Your task to perform on an android device: refresh tabs in the chrome app Image 0: 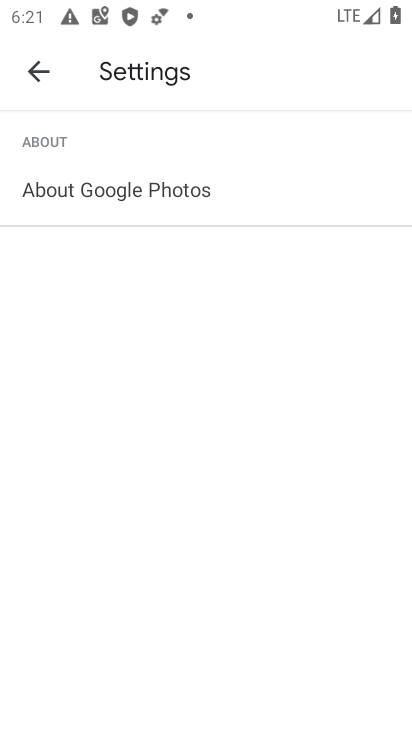
Step 0: press home button
Your task to perform on an android device: refresh tabs in the chrome app Image 1: 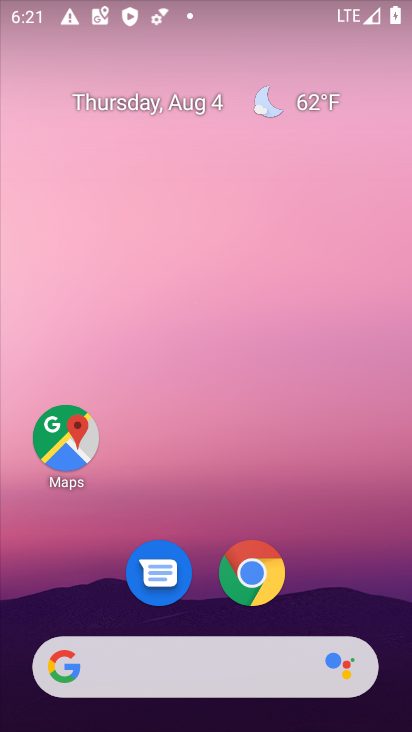
Step 1: drag from (214, 620) to (209, 221)
Your task to perform on an android device: refresh tabs in the chrome app Image 2: 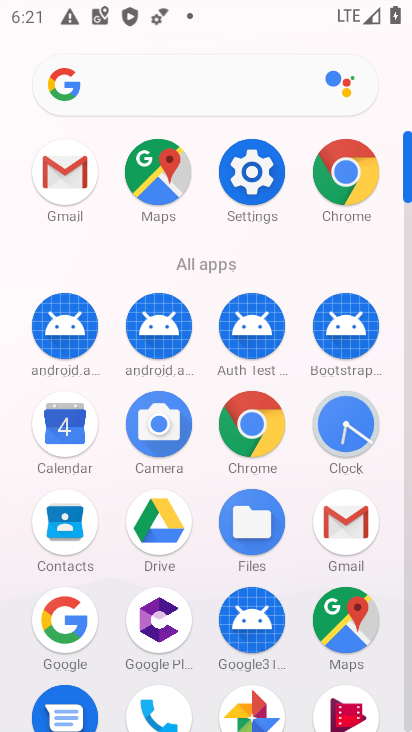
Step 2: click (334, 185)
Your task to perform on an android device: refresh tabs in the chrome app Image 3: 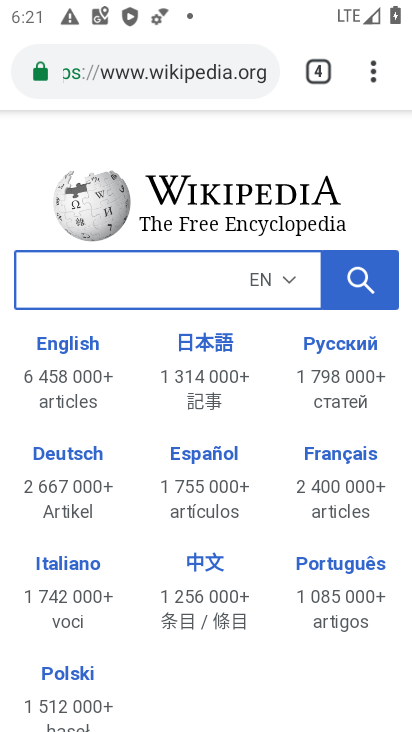
Step 3: click (377, 74)
Your task to perform on an android device: refresh tabs in the chrome app Image 4: 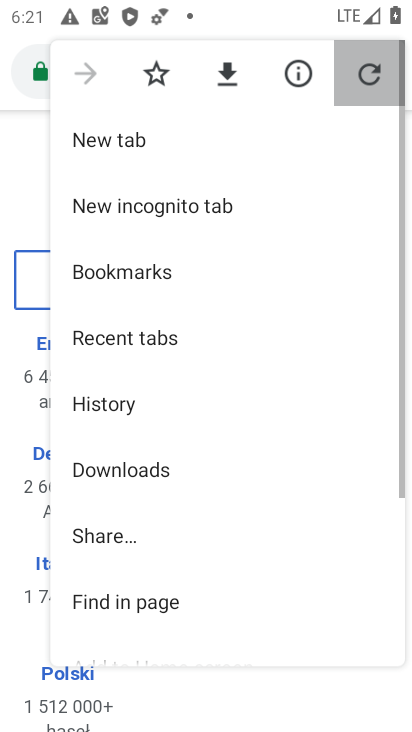
Step 4: click (377, 74)
Your task to perform on an android device: refresh tabs in the chrome app Image 5: 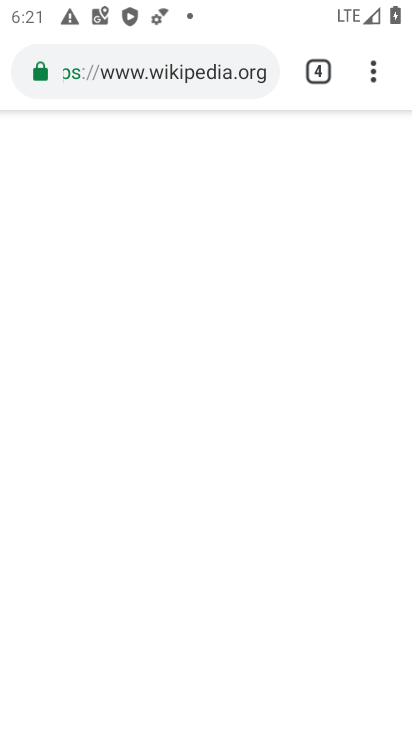
Step 5: task complete